Your task to perform on an android device: Toggle the flashlight Image 0: 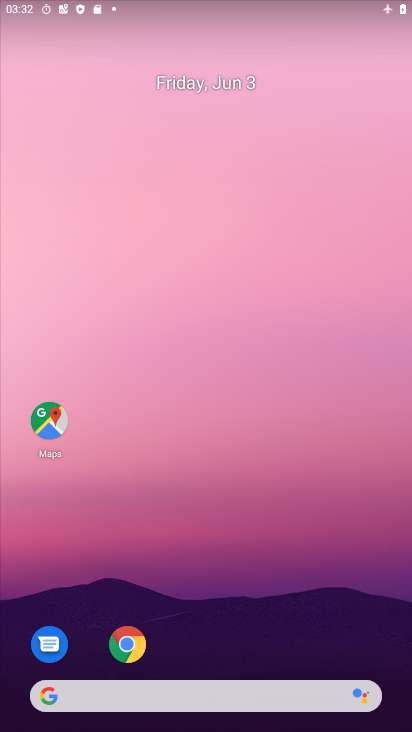
Step 0: drag from (204, 647) to (213, 236)
Your task to perform on an android device: Toggle the flashlight Image 1: 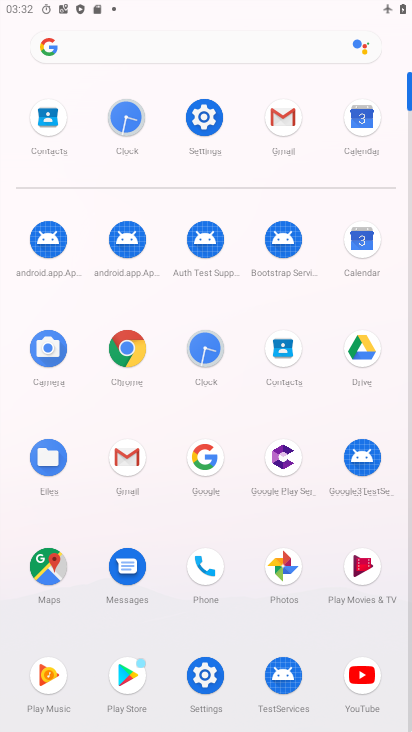
Step 1: click (195, 127)
Your task to perform on an android device: Toggle the flashlight Image 2: 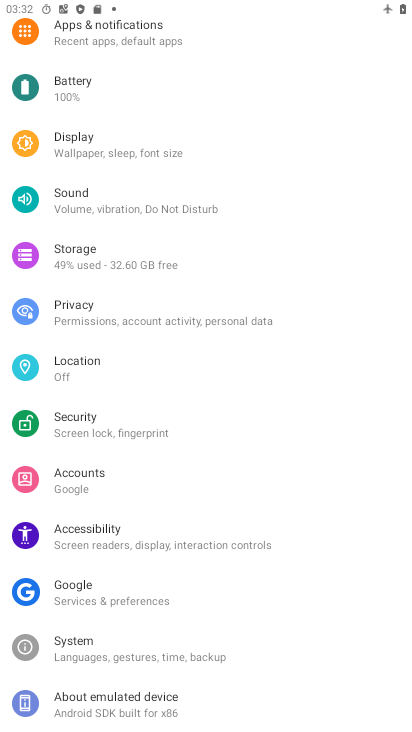
Step 2: task complete